Your task to perform on an android device: set an alarm Image 0: 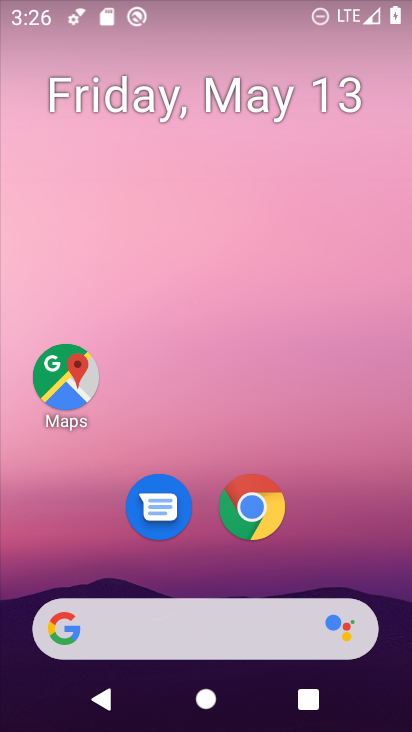
Step 0: drag from (332, 466) to (338, 160)
Your task to perform on an android device: set an alarm Image 1: 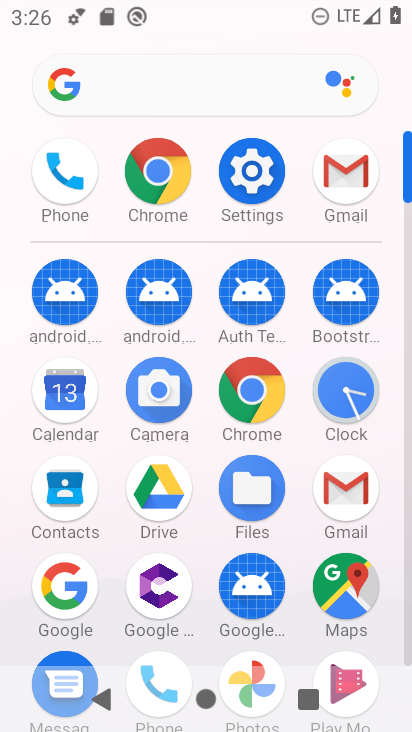
Step 1: click (346, 393)
Your task to perform on an android device: set an alarm Image 2: 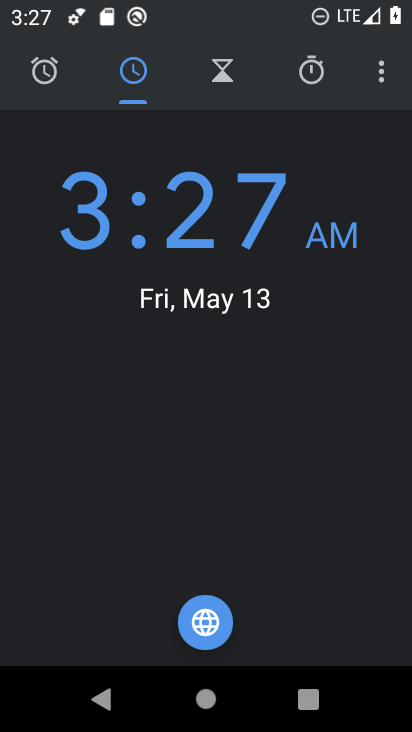
Step 2: click (371, 79)
Your task to perform on an android device: set an alarm Image 3: 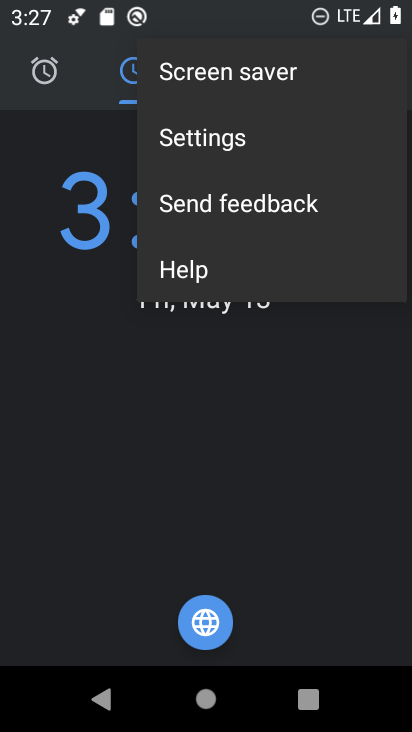
Step 3: click (46, 286)
Your task to perform on an android device: set an alarm Image 4: 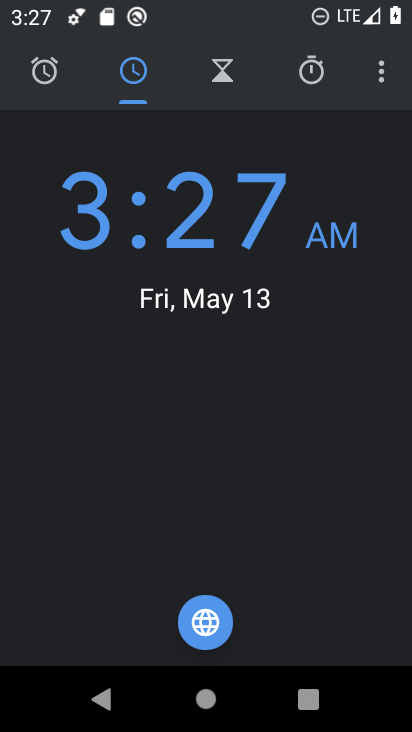
Step 4: click (44, 81)
Your task to perform on an android device: set an alarm Image 5: 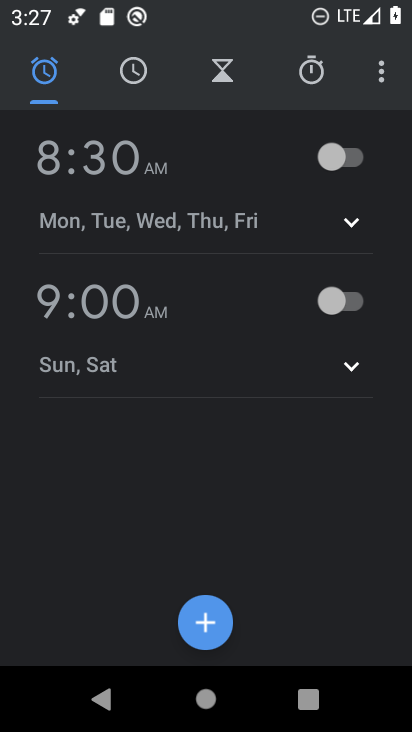
Step 5: click (133, 77)
Your task to perform on an android device: set an alarm Image 6: 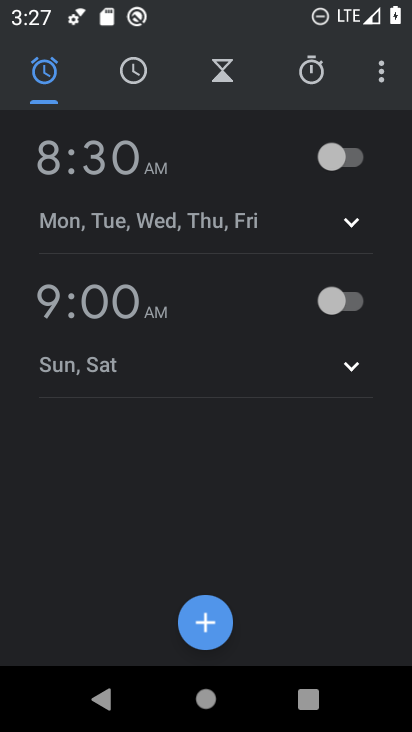
Step 6: click (61, 90)
Your task to perform on an android device: set an alarm Image 7: 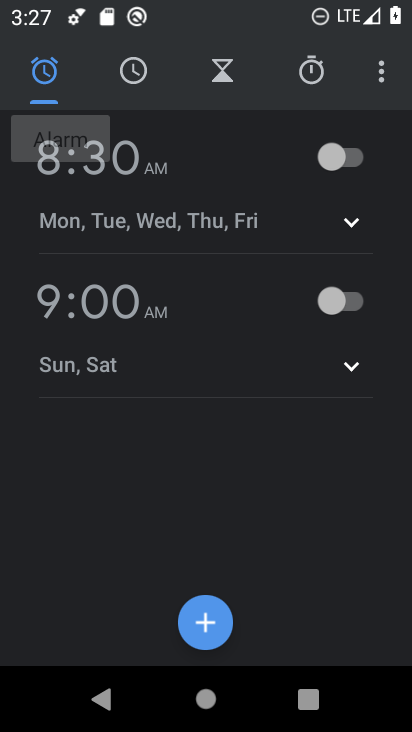
Step 7: click (33, 149)
Your task to perform on an android device: set an alarm Image 8: 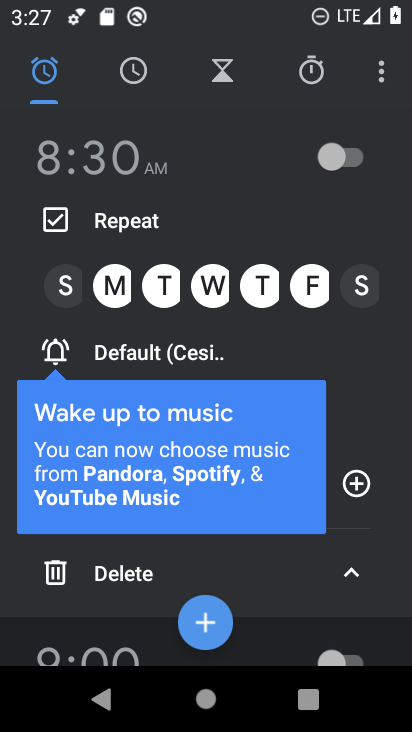
Step 8: click (97, 150)
Your task to perform on an android device: set an alarm Image 9: 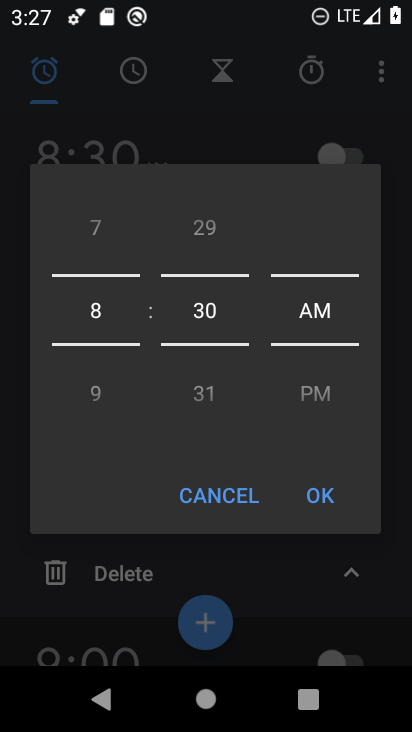
Step 9: drag from (315, 350) to (328, 279)
Your task to perform on an android device: set an alarm Image 10: 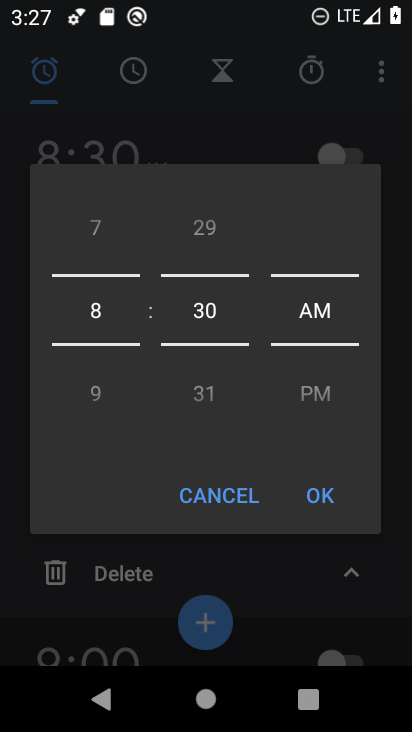
Step 10: drag from (325, 332) to (344, 258)
Your task to perform on an android device: set an alarm Image 11: 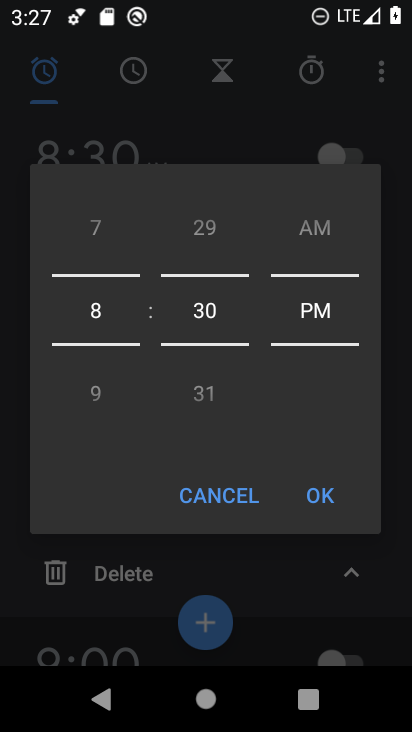
Step 11: click (230, 494)
Your task to perform on an android device: set an alarm Image 12: 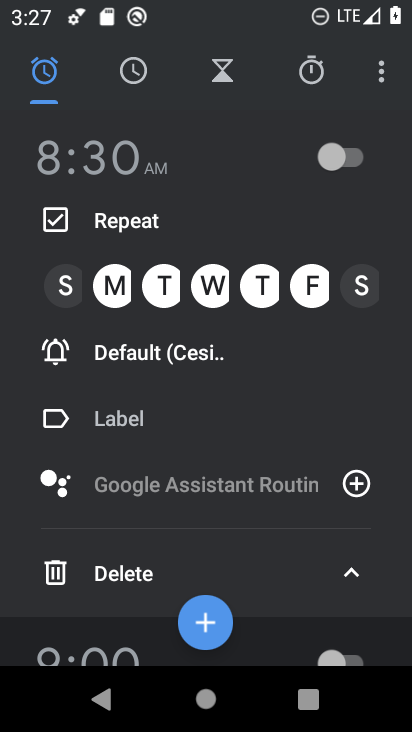
Step 12: click (196, 626)
Your task to perform on an android device: set an alarm Image 13: 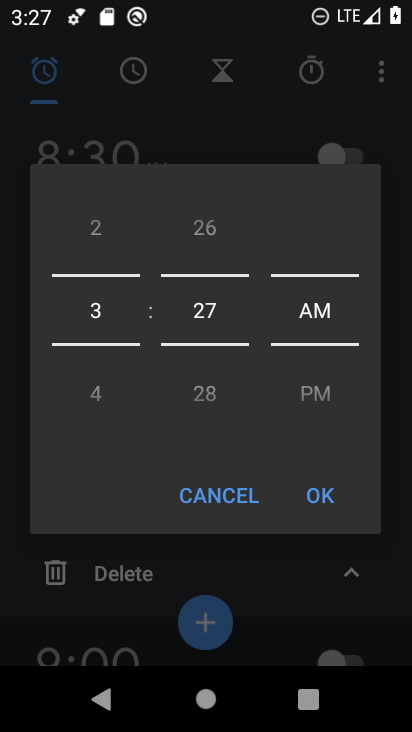
Step 13: drag from (100, 306) to (123, 217)
Your task to perform on an android device: set an alarm Image 14: 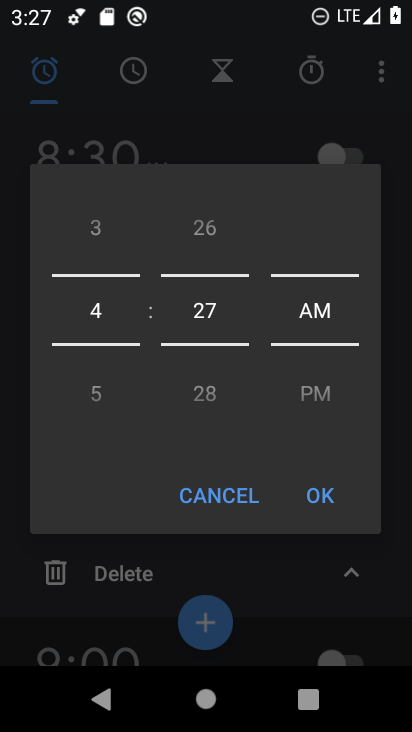
Step 14: drag from (322, 347) to (334, 307)
Your task to perform on an android device: set an alarm Image 15: 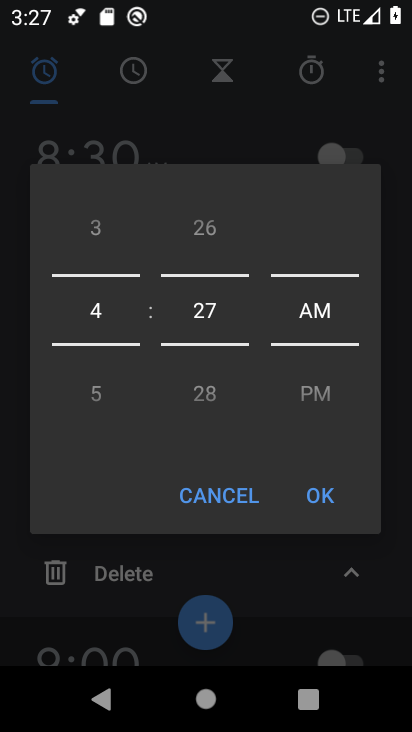
Step 15: drag from (307, 337) to (327, 249)
Your task to perform on an android device: set an alarm Image 16: 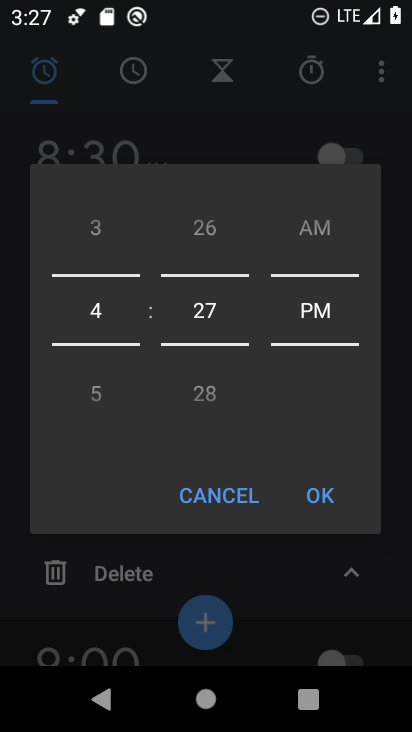
Step 16: drag from (83, 294) to (94, 367)
Your task to perform on an android device: set an alarm Image 17: 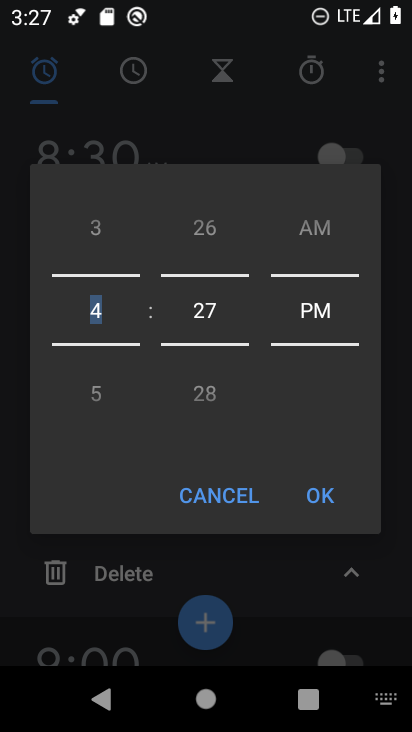
Step 17: click (91, 307)
Your task to perform on an android device: set an alarm Image 18: 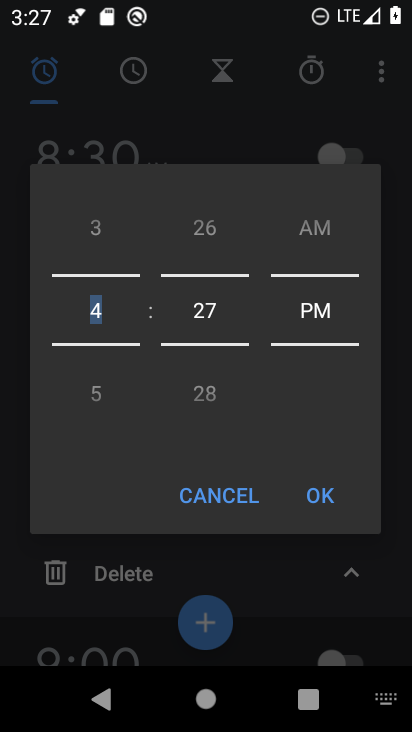
Step 18: drag from (108, 235) to (101, 326)
Your task to perform on an android device: set an alarm Image 19: 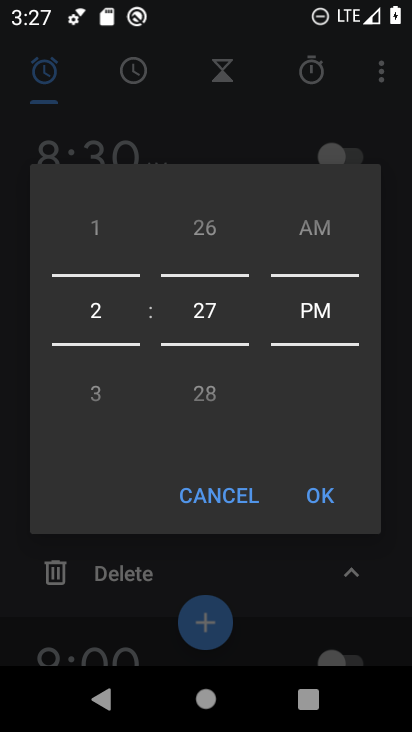
Step 19: click (315, 500)
Your task to perform on an android device: set an alarm Image 20: 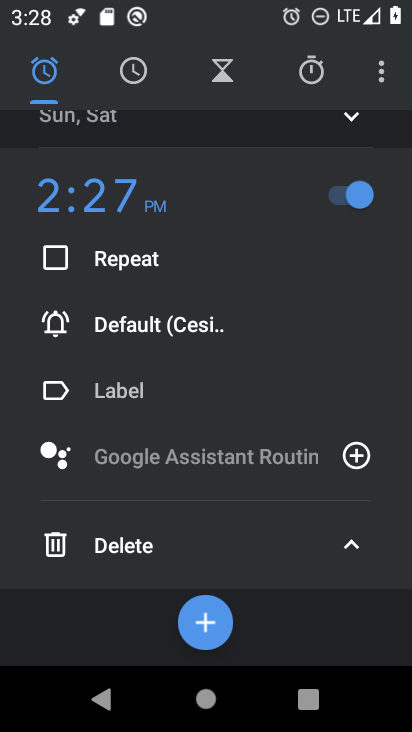
Step 20: click (149, 278)
Your task to perform on an android device: set an alarm Image 21: 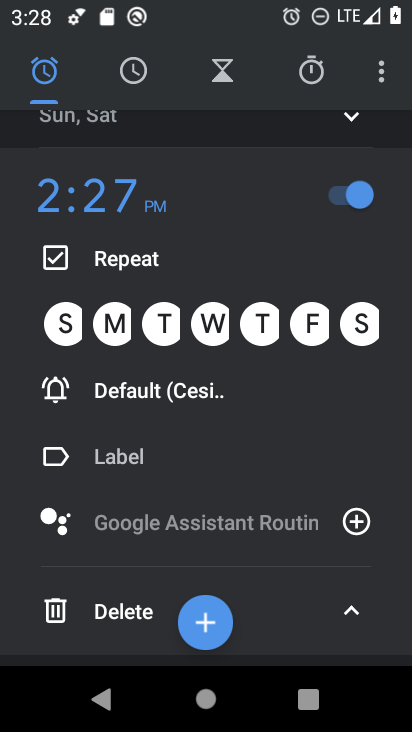
Step 21: click (353, 321)
Your task to perform on an android device: set an alarm Image 22: 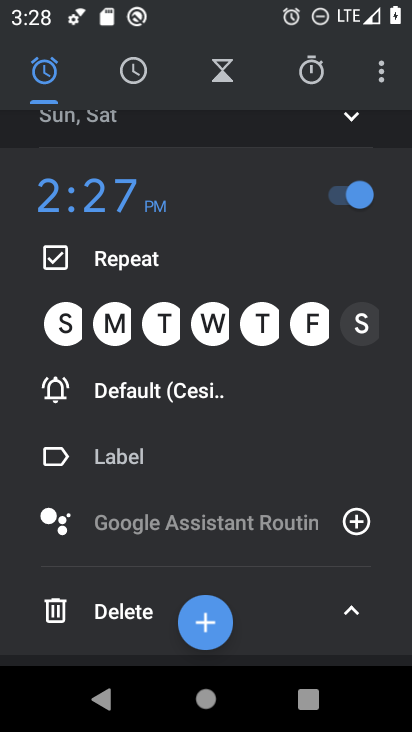
Step 22: click (214, 201)
Your task to perform on an android device: set an alarm Image 23: 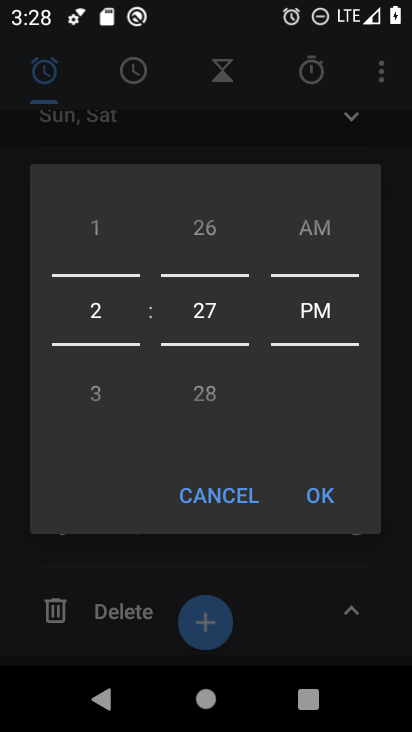
Step 23: click (312, 488)
Your task to perform on an android device: set an alarm Image 24: 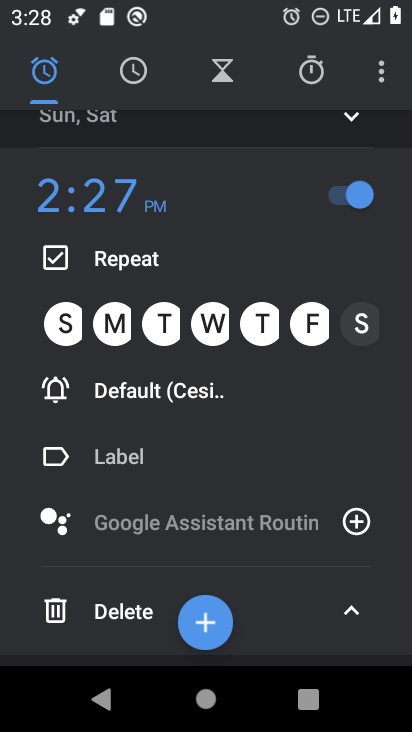
Step 24: drag from (313, 485) to (344, 231)
Your task to perform on an android device: set an alarm Image 25: 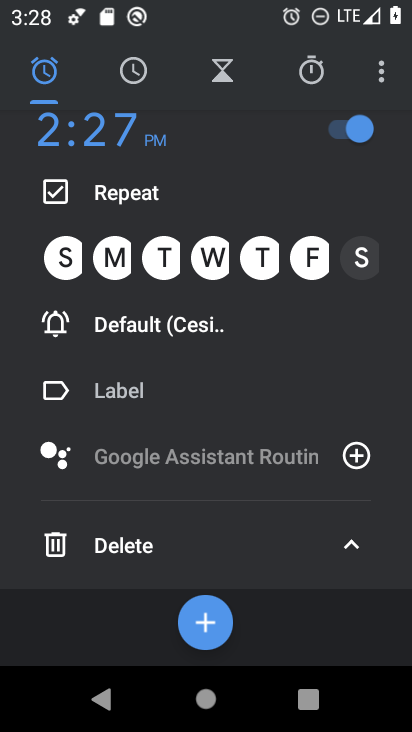
Step 25: click (351, 542)
Your task to perform on an android device: set an alarm Image 26: 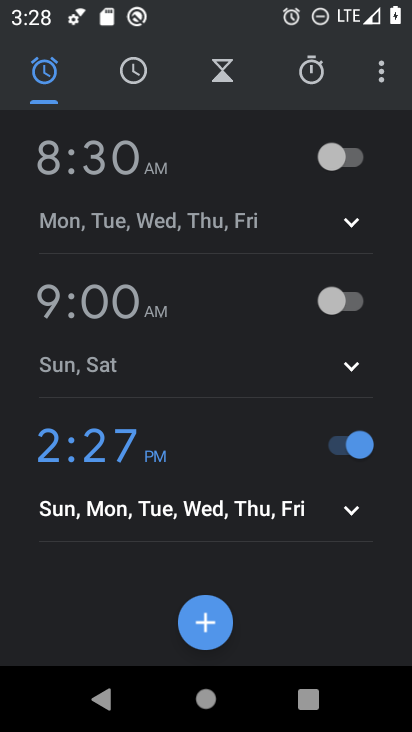
Step 26: task complete